Your task to perform on an android device: turn off improve location accuracy Image 0: 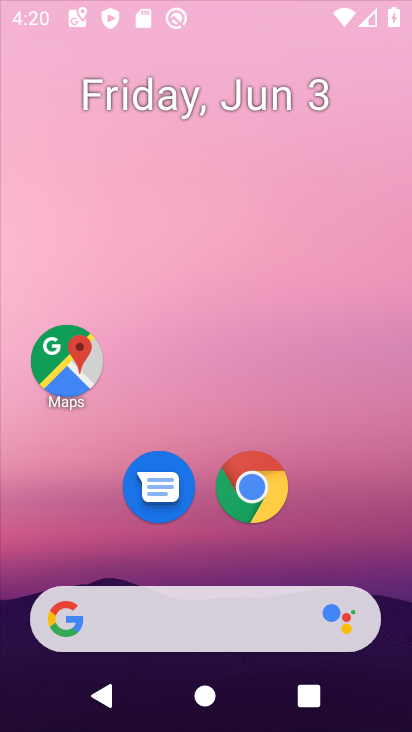
Step 0: click (265, 9)
Your task to perform on an android device: turn off improve location accuracy Image 1: 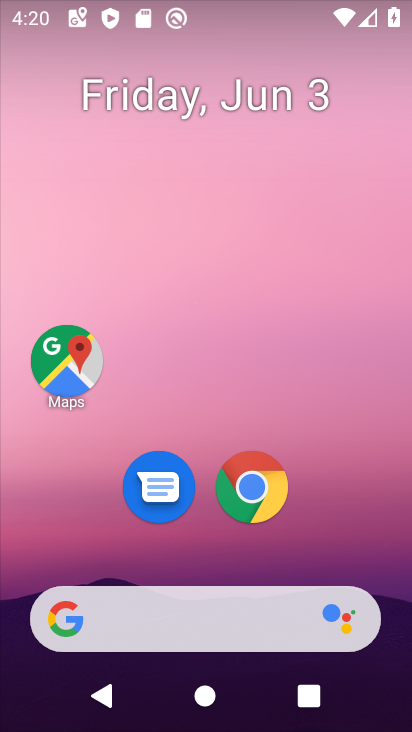
Step 1: drag from (194, 415) to (201, 140)
Your task to perform on an android device: turn off improve location accuracy Image 2: 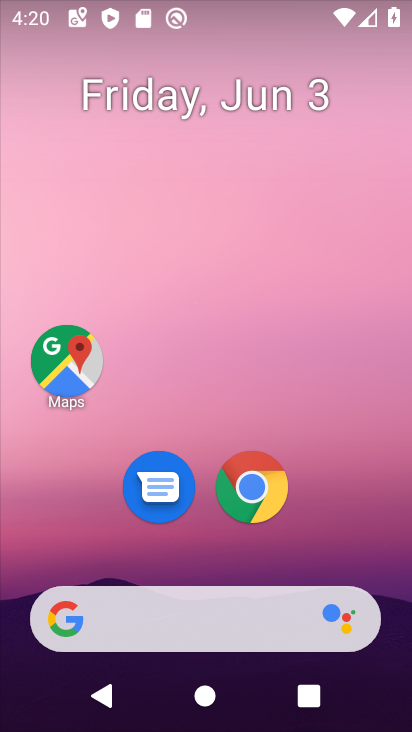
Step 2: drag from (206, 452) to (224, 16)
Your task to perform on an android device: turn off improve location accuracy Image 3: 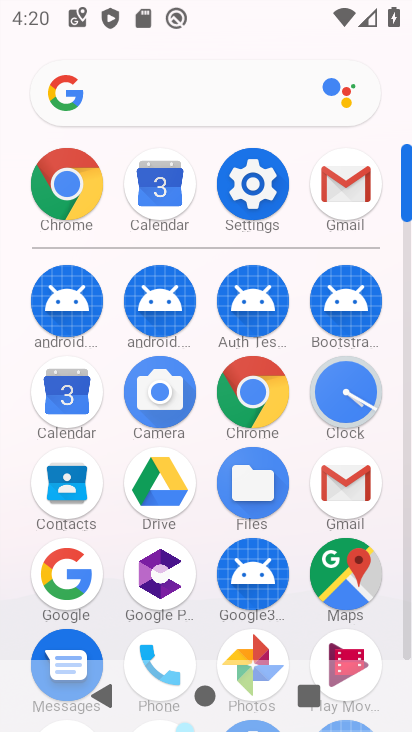
Step 3: click (250, 161)
Your task to perform on an android device: turn off improve location accuracy Image 4: 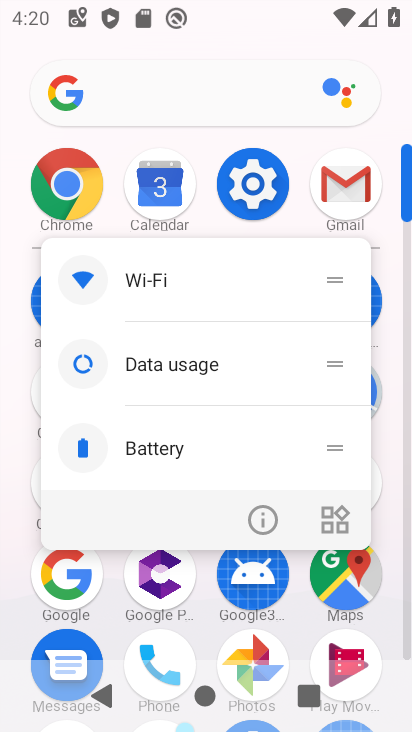
Step 4: click (262, 524)
Your task to perform on an android device: turn off improve location accuracy Image 5: 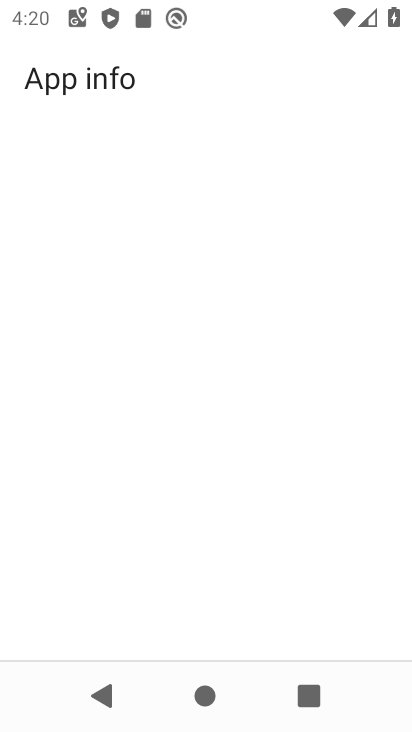
Step 5: drag from (241, 478) to (233, 90)
Your task to perform on an android device: turn off improve location accuracy Image 6: 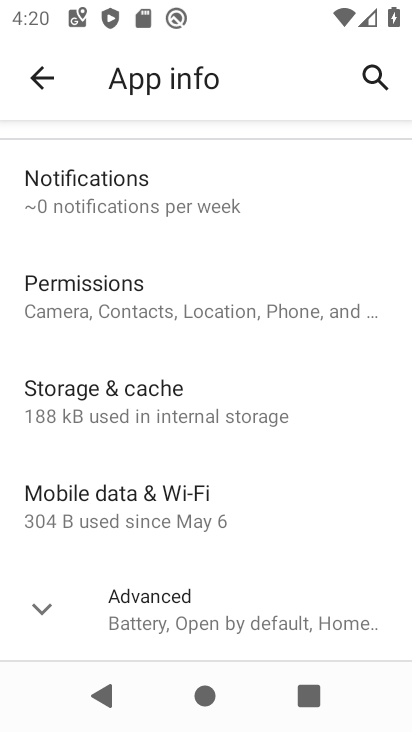
Step 6: drag from (137, 283) to (235, 719)
Your task to perform on an android device: turn off improve location accuracy Image 7: 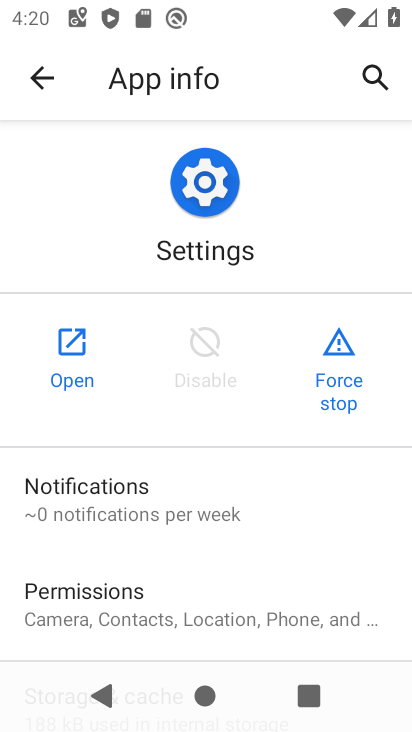
Step 7: click (64, 334)
Your task to perform on an android device: turn off improve location accuracy Image 8: 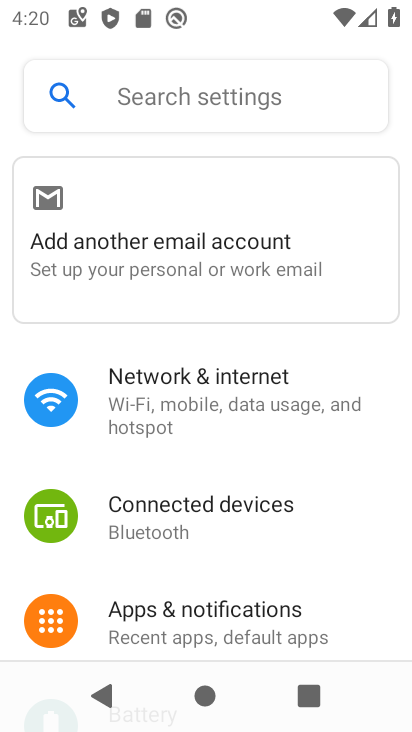
Step 8: drag from (263, 551) to (268, 122)
Your task to perform on an android device: turn off improve location accuracy Image 9: 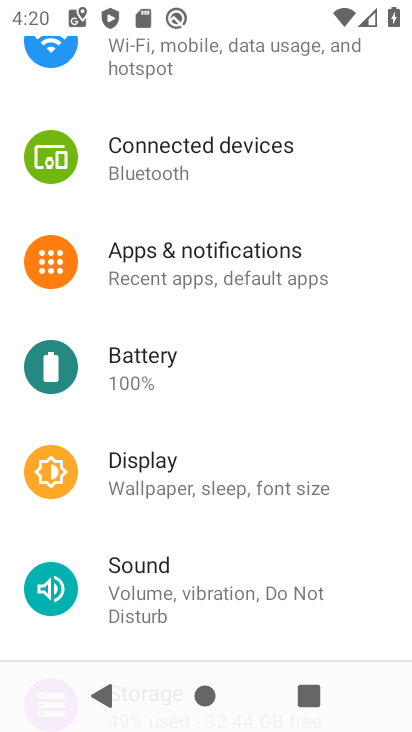
Step 9: drag from (218, 476) to (243, 160)
Your task to perform on an android device: turn off improve location accuracy Image 10: 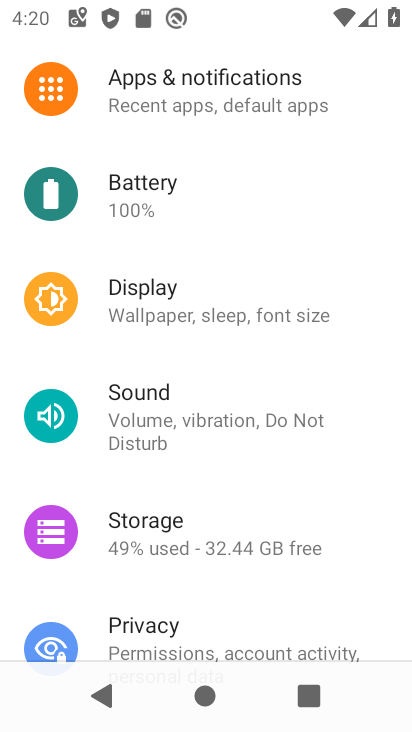
Step 10: drag from (206, 563) to (246, 140)
Your task to perform on an android device: turn off improve location accuracy Image 11: 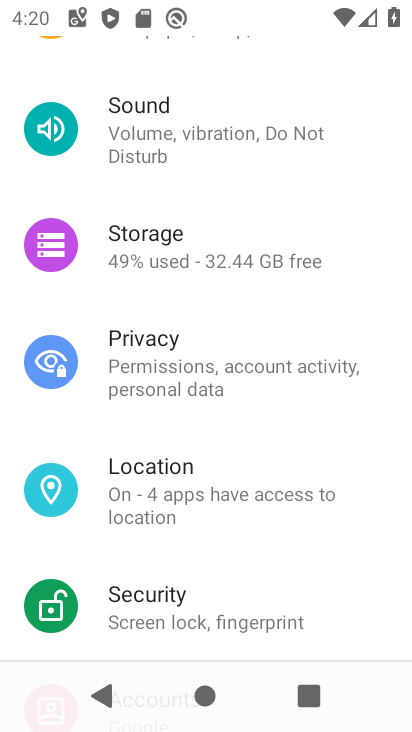
Step 11: click (180, 498)
Your task to perform on an android device: turn off improve location accuracy Image 12: 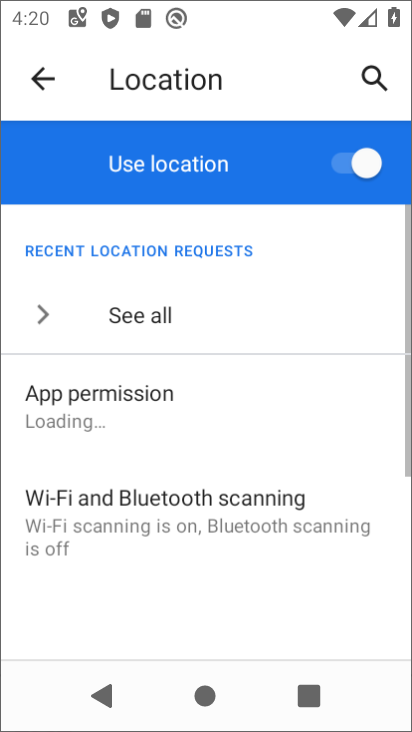
Step 12: drag from (254, 511) to (268, 201)
Your task to perform on an android device: turn off improve location accuracy Image 13: 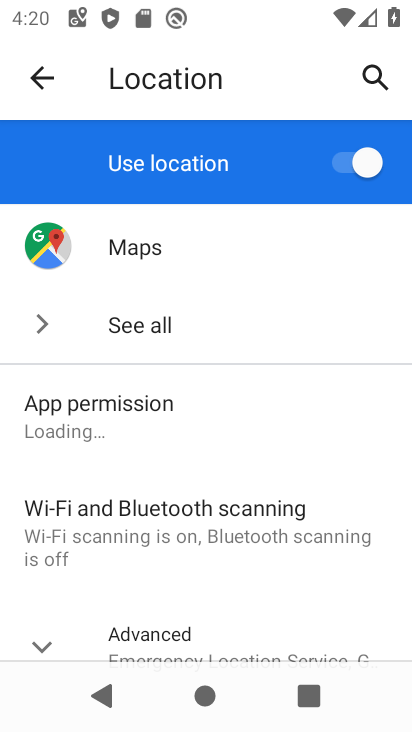
Step 13: click (157, 632)
Your task to perform on an android device: turn off improve location accuracy Image 14: 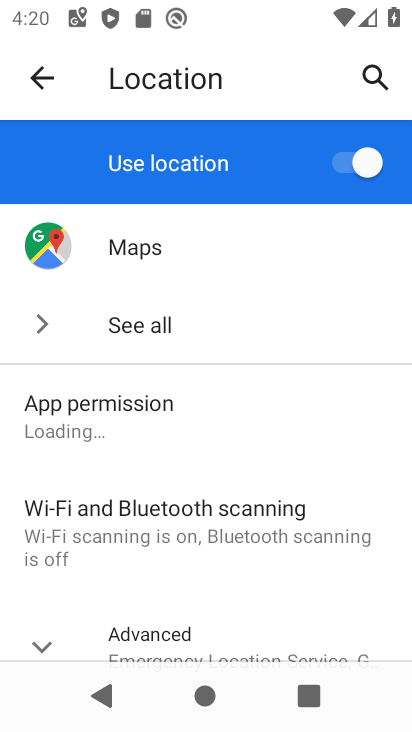
Step 14: drag from (163, 613) to (198, 0)
Your task to perform on an android device: turn off improve location accuracy Image 15: 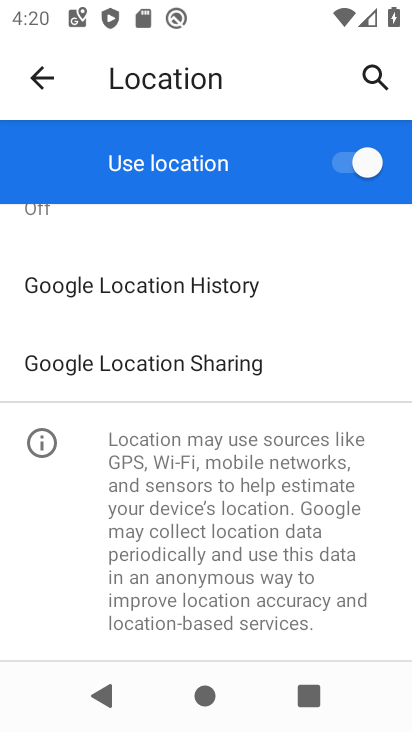
Step 15: drag from (202, 345) to (249, 519)
Your task to perform on an android device: turn off improve location accuracy Image 16: 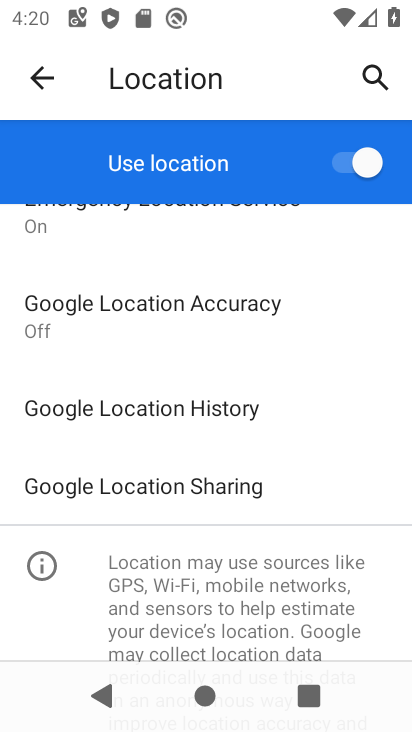
Step 16: drag from (230, 310) to (288, 510)
Your task to perform on an android device: turn off improve location accuracy Image 17: 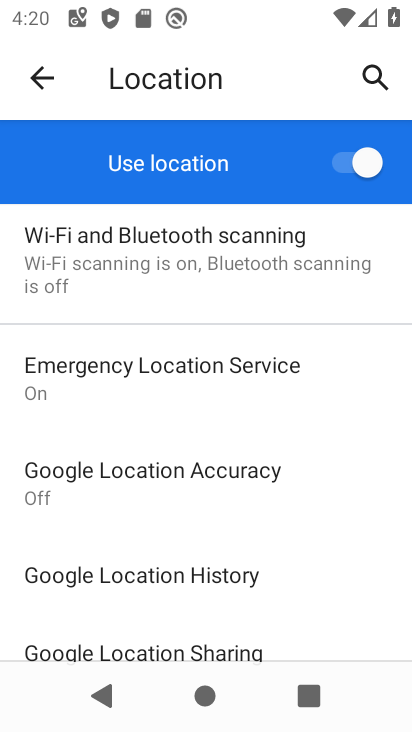
Step 17: click (243, 478)
Your task to perform on an android device: turn off improve location accuracy Image 18: 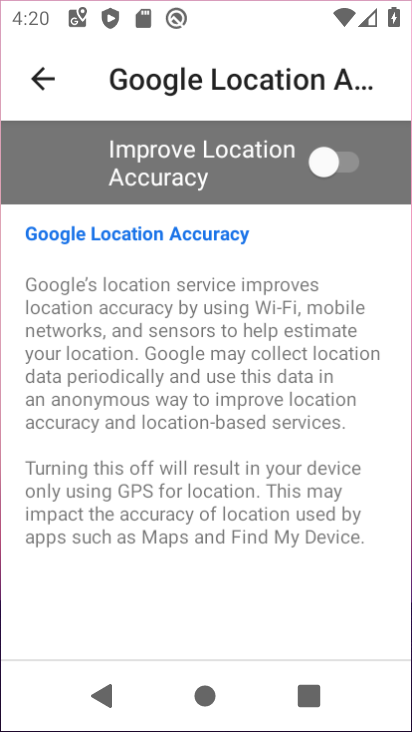
Step 18: task complete